Your task to perform on an android device: turn off javascript in the chrome app Image 0: 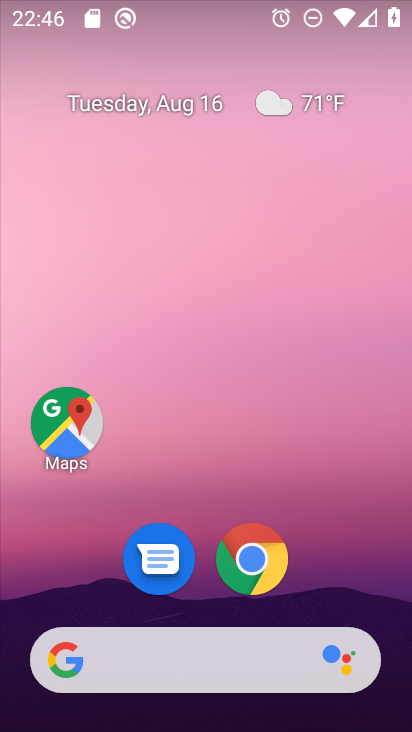
Step 0: click (251, 559)
Your task to perform on an android device: turn off javascript in the chrome app Image 1: 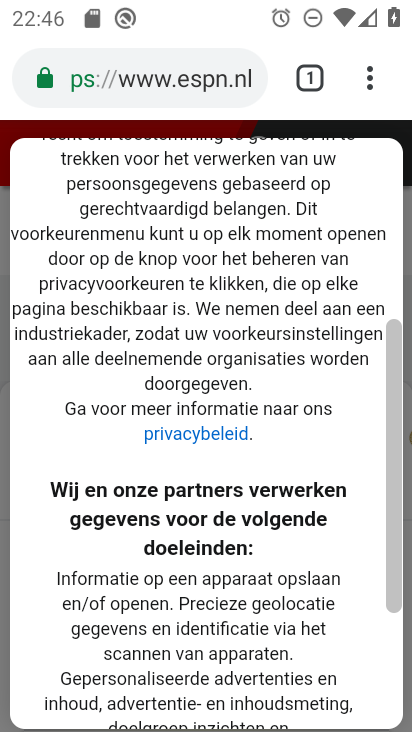
Step 1: click (382, 82)
Your task to perform on an android device: turn off javascript in the chrome app Image 2: 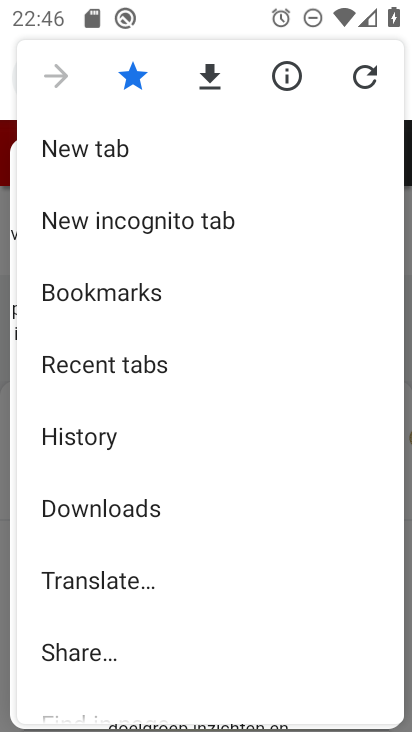
Step 2: drag from (123, 470) to (152, 386)
Your task to perform on an android device: turn off javascript in the chrome app Image 3: 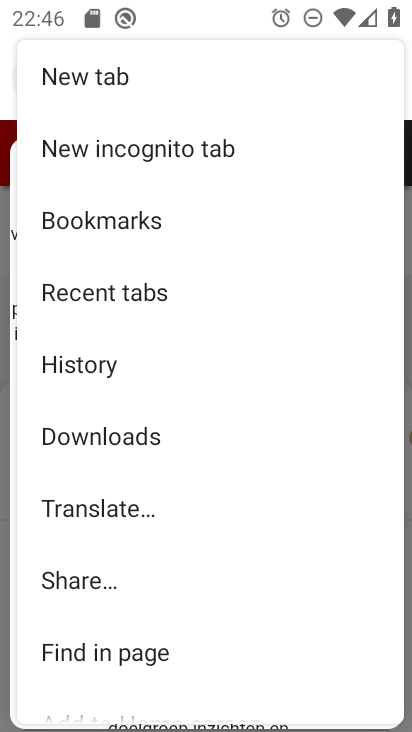
Step 3: drag from (85, 524) to (158, 423)
Your task to perform on an android device: turn off javascript in the chrome app Image 4: 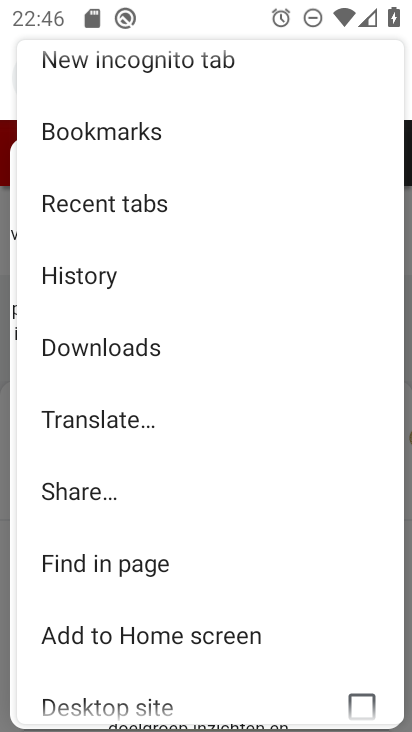
Step 4: drag from (110, 536) to (164, 433)
Your task to perform on an android device: turn off javascript in the chrome app Image 5: 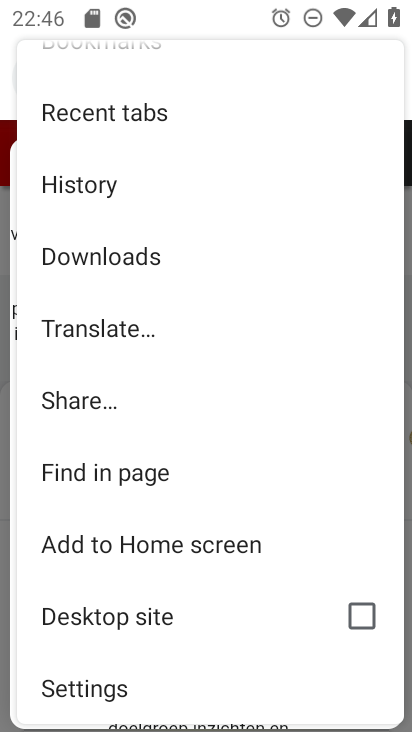
Step 5: drag from (127, 564) to (196, 420)
Your task to perform on an android device: turn off javascript in the chrome app Image 6: 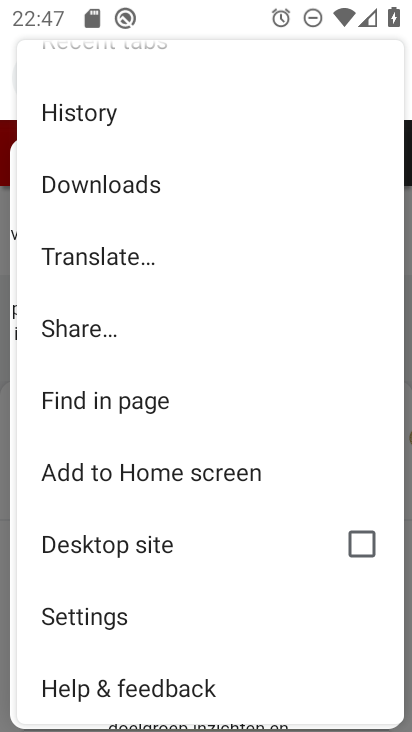
Step 6: click (94, 618)
Your task to perform on an android device: turn off javascript in the chrome app Image 7: 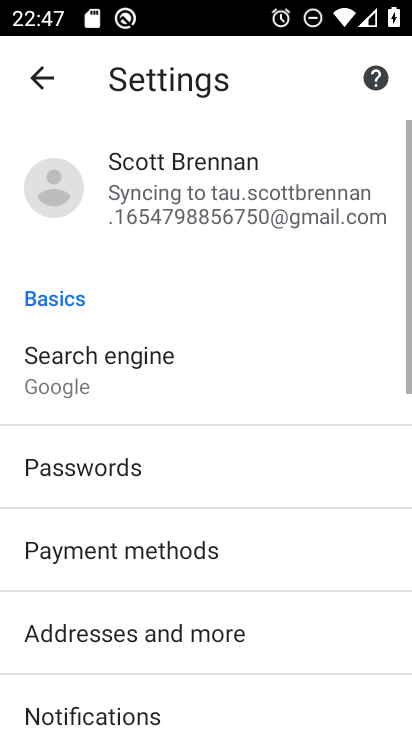
Step 7: drag from (94, 618) to (116, 482)
Your task to perform on an android device: turn off javascript in the chrome app Image 8: 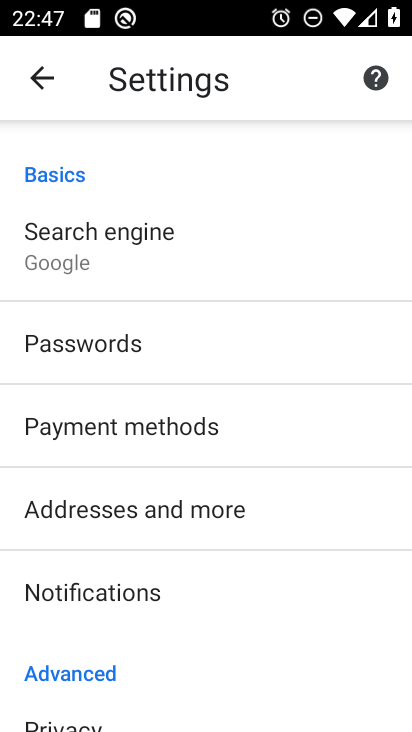
Step 8: drag from (132, 610) to (181, 499)
Your task to perform on an android device: turn off javascript in the chrome app Image 9: 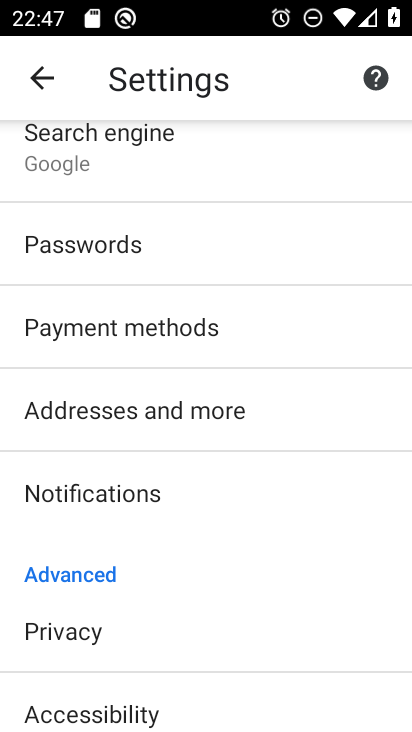
Step 9: drag from (137, 623) to (207, 506)
Your task to perform on an android device: turn off javascript in the chrome app Image 10: 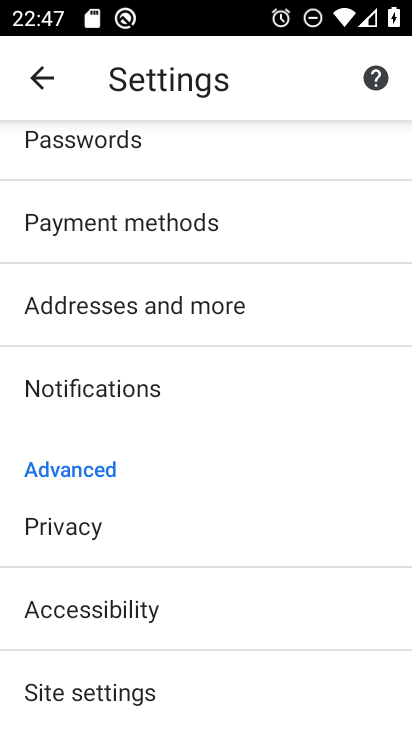
Step 10: click (125, 691)
Your task to perform on an android device: turn off javascript in the chrome app Image 11: 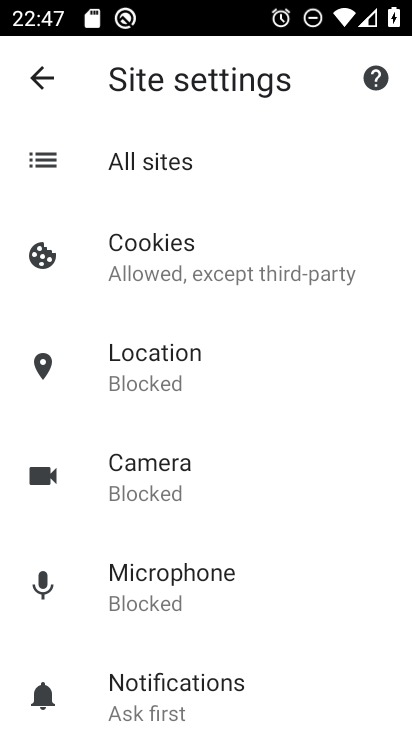
Step 11: drag from (178, 438) to (248, 336)
Your task to perform on an android device: turn off javascript in the chrome app Image 12: 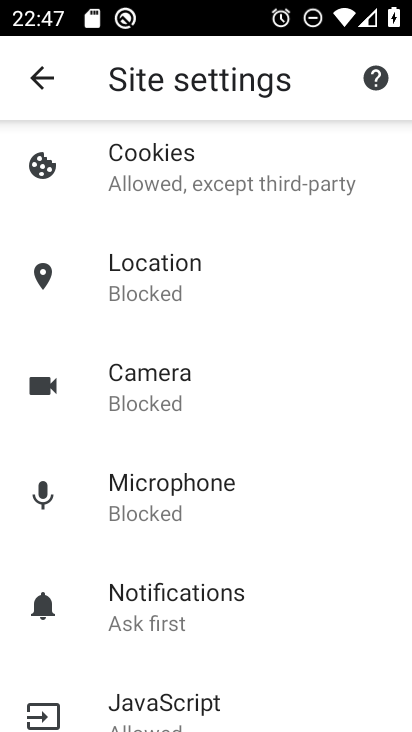
Step 12: drag from (185, 452) to (252, 357)
Your task to perform on an android device: turn off javascript in the chrome app Image 13: 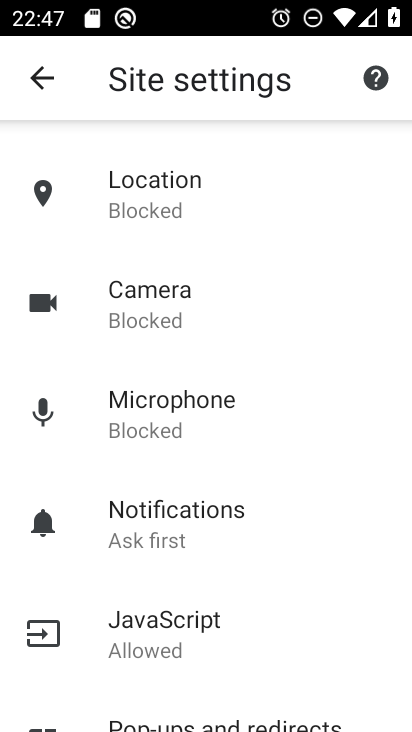
Step 13: click (205, 611)
Your task to perform on an android device: turn off javascript in the chrome app Image 14: 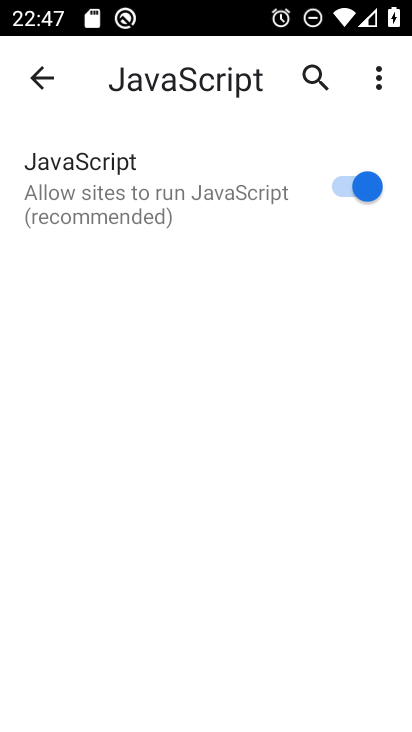
Step 14: click (347, 190)
Your task to perform on an android device: turn off javascript in the chrome app Image 15: 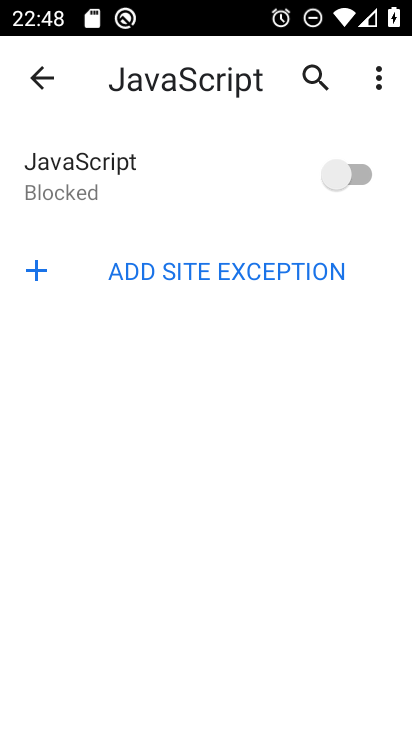
Step 15: task complete